Your task to perform on an android device: empty trash in the gmail app Image 0: 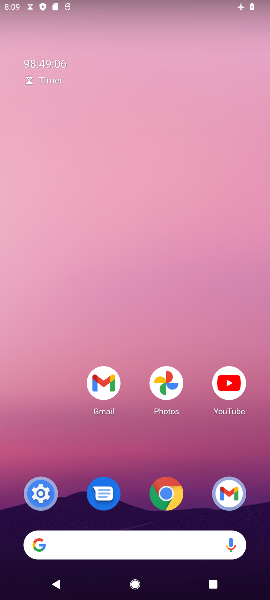
Step 0: drag from (157, 473) to (168, 130)
Your task to perform on an android device: empty trash in the gmail app Image 1: 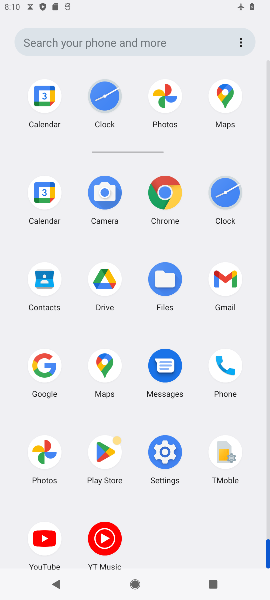
Step 1: click (209, 281)
Your task to perform on an android device: empty trash in the gmail app Image 2: 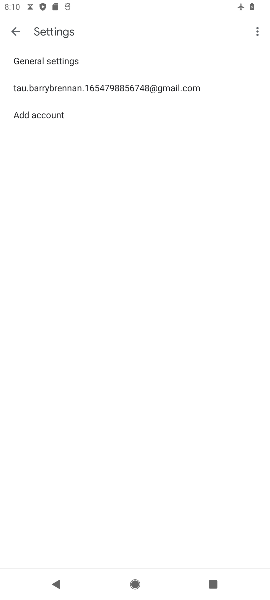
Step 2: click (20, 28)
Your task to perform on an android device: empty trash in the gmail app Image 3: 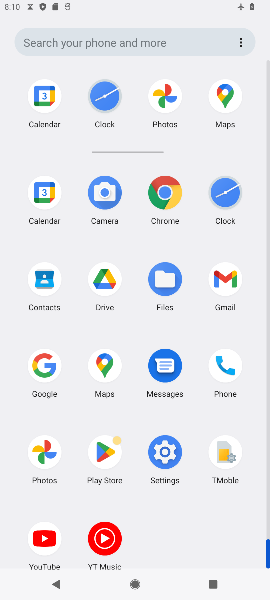
Step 3: click (216, 275)
Your task to perform on an android device: empty trash in the gmail app Image 4: 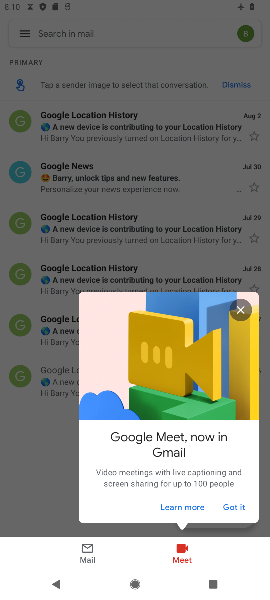
Step 4: click (29, 33)
Your task to perform on an android device: empty trash in the gmail app Image 5: 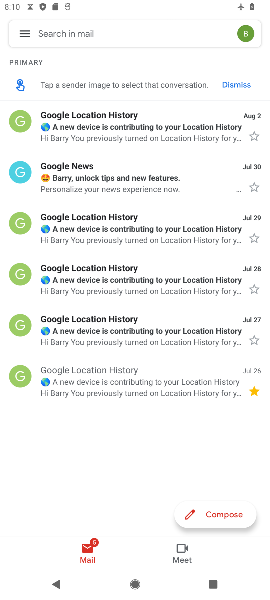
Step 5: click (18, 30)
Your task to perform on an android device: empty trash in the gmail app Image 6: 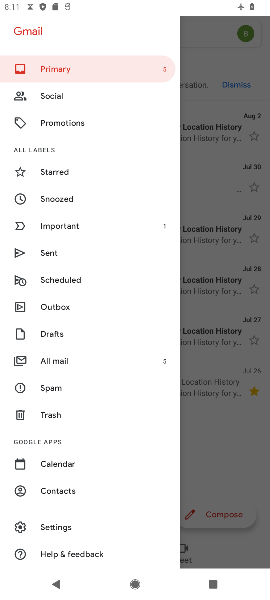
Step 6: click (52, 416)
Your task to perform on an android device: empty trash in the gmail app Image 7: 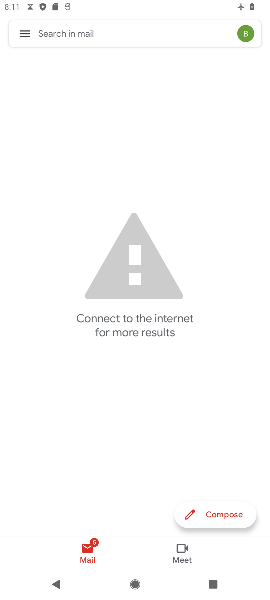
Step 7: task complete